Your task to perform on an android device: Check the weather Image 0: 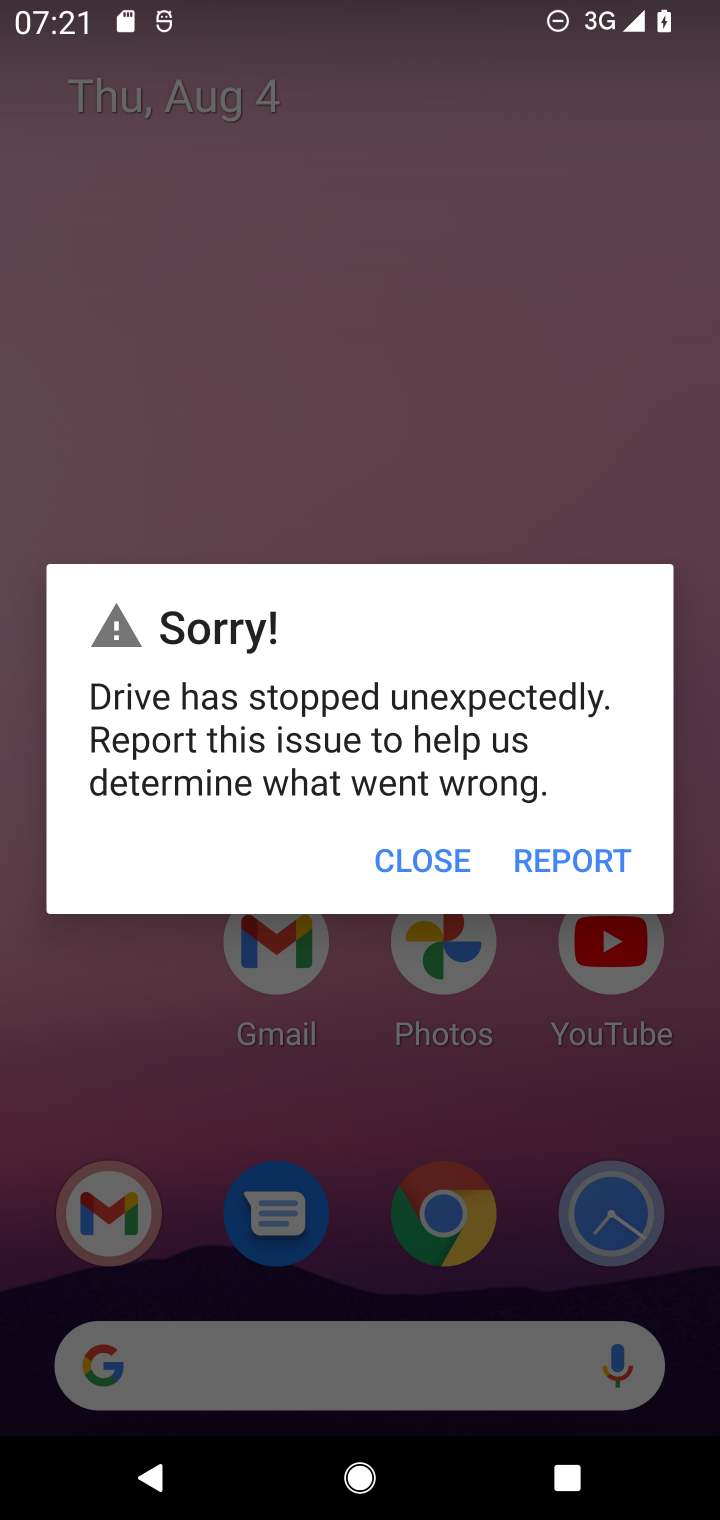
Step 0: press home button
Your task to perform on an android device: Check the weather Image 1: 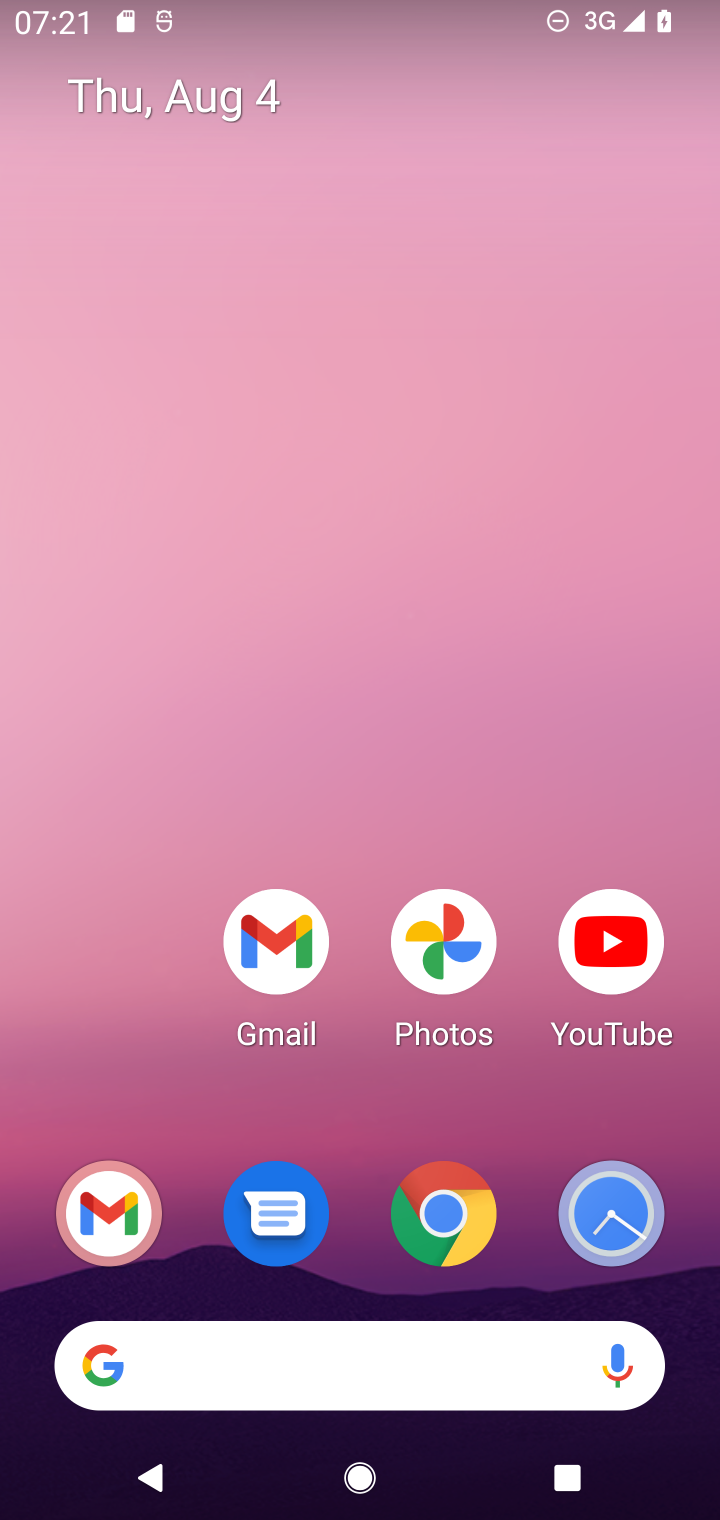
Step 1: click (414, 1347)
Your task to perform on an android device: Check the weather Image 2: 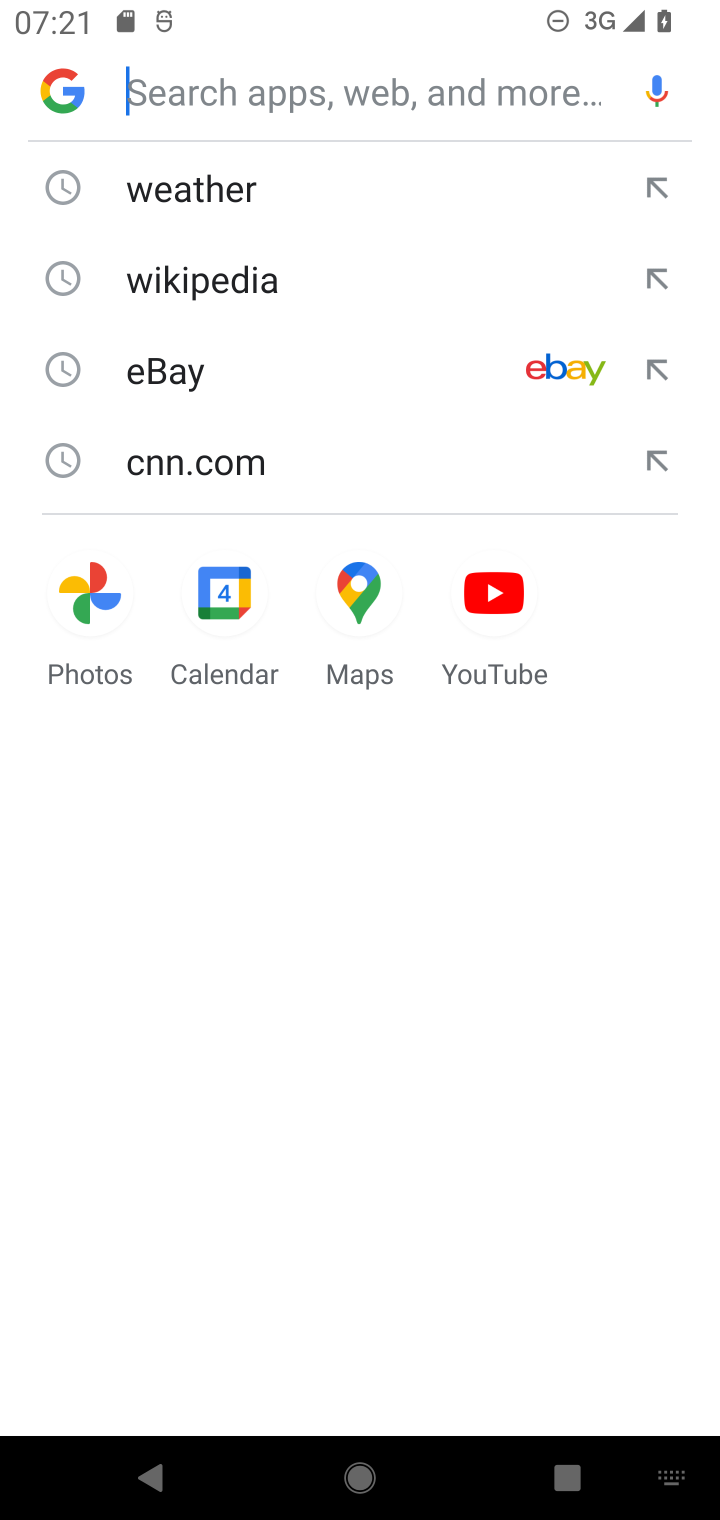
Step 2: click (206, 189)
Your task to perform on an android device: Check the weather Image 3: 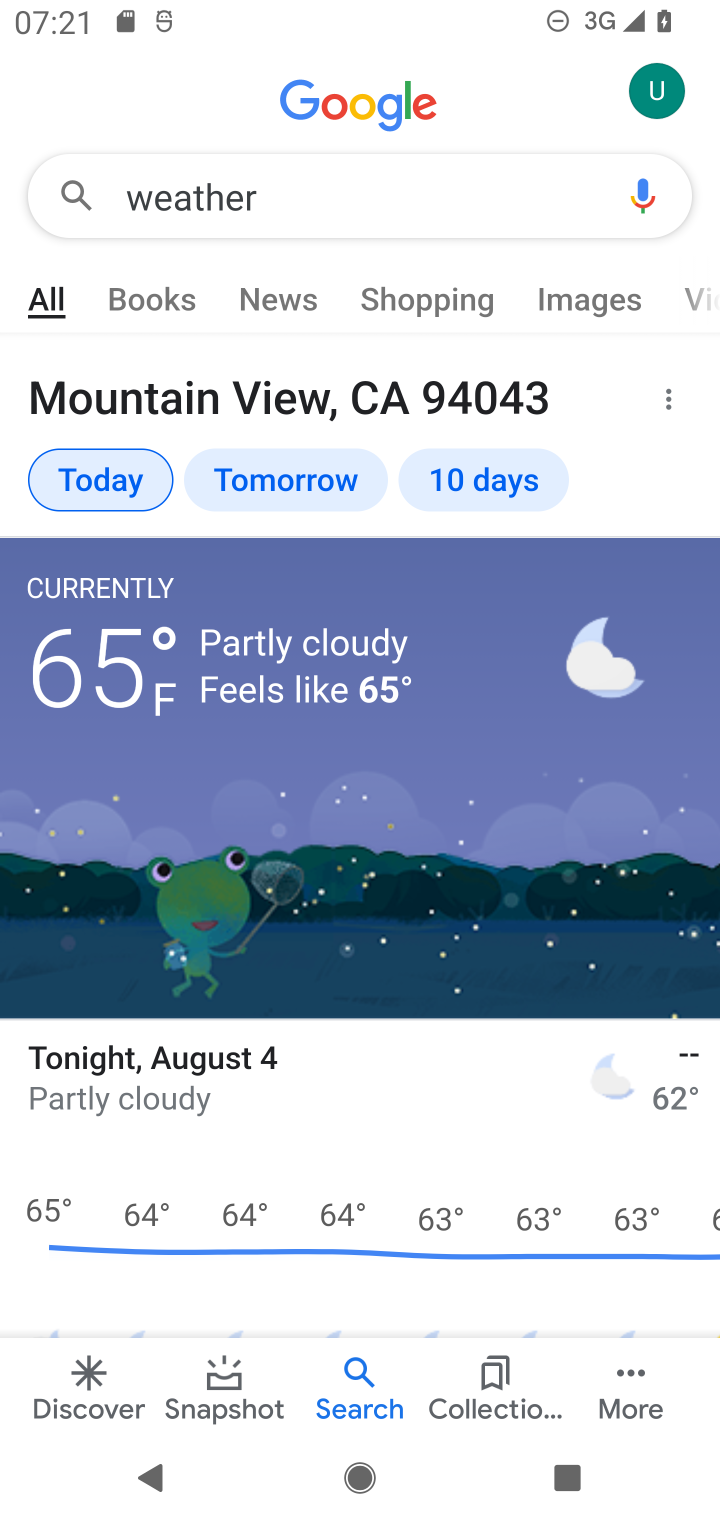
Step 3: task complete